Your task to perform on an android device: Search for pizza restaurants on Maps Image 0: 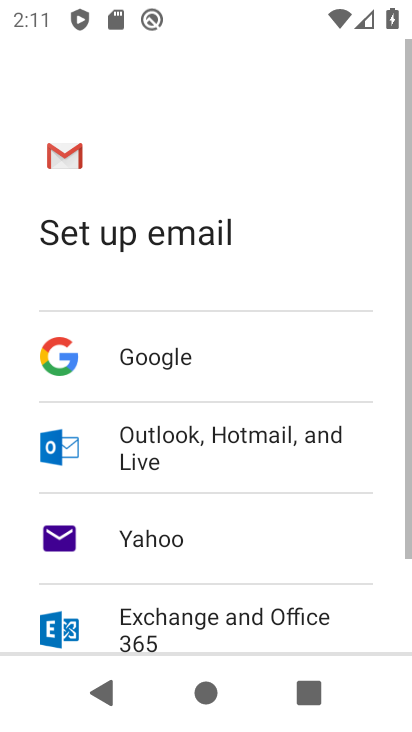
Step 0: press home button
Your task to perform on an android device: Search for pizza restaurants on Maps Image 1: 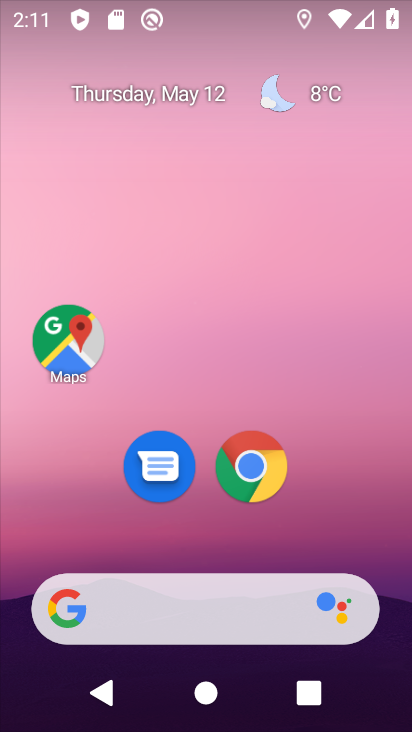
Step 1: click (72, 349)
Your task to perform on an android device: Search for pizza restaurants on Maps Image 2: 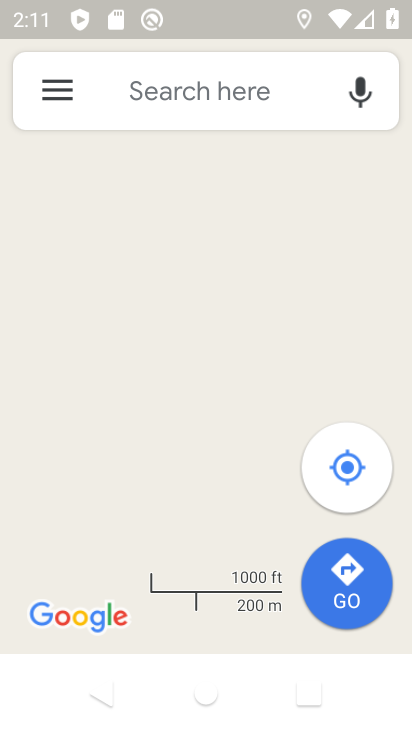
Step 2: click (191, 97)
Your task to perform on an android device: Search for pizza restaurants on Maps Image 3: 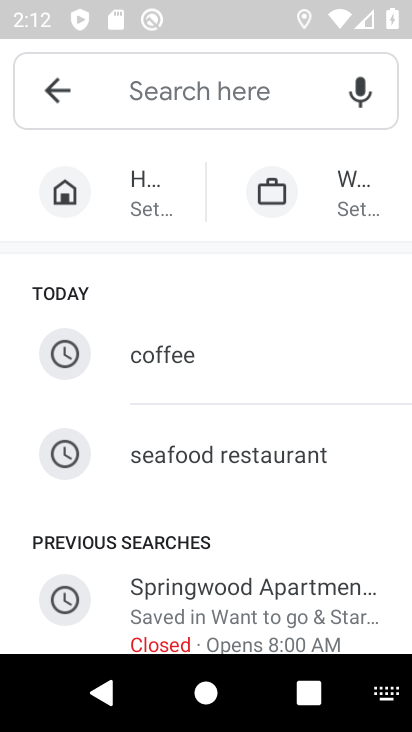
Step 3: type "pizza restaurants"
Your task to perform on an android device: Search for pizza restaurants on Maps Image 4: 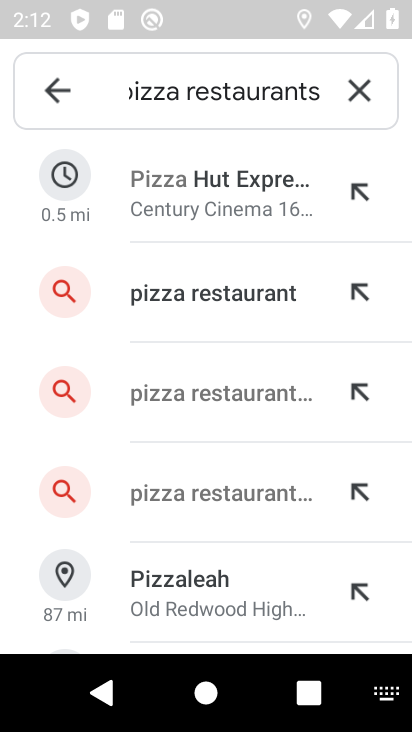
Step 4: click (132, 290)
Your task to perform on an android device: Search for pizza restaurants on Maps Image 5: 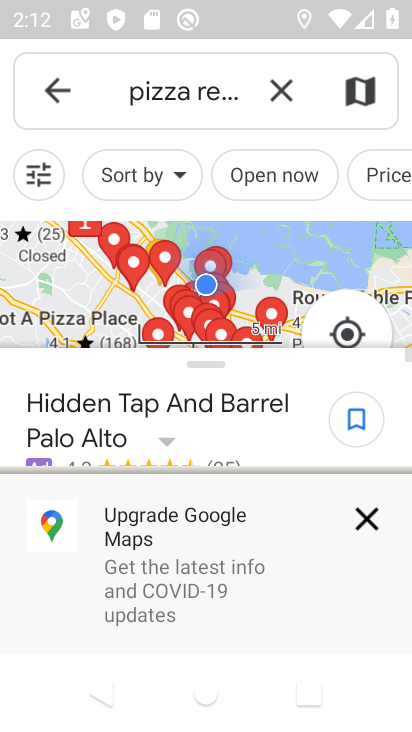
Step 5: drag from (201, 425) to (213, 241)
Your task to perform on an android device: Search for pizza restaurants on Maps Image 6: 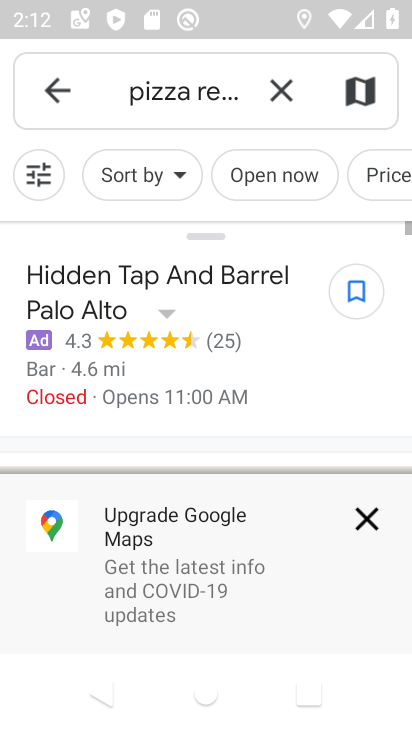
Step 6: drag from (208, 389) to (204, 151)
Your task to perform on an android device: Search for pizza restaurants on Maps Image 7: 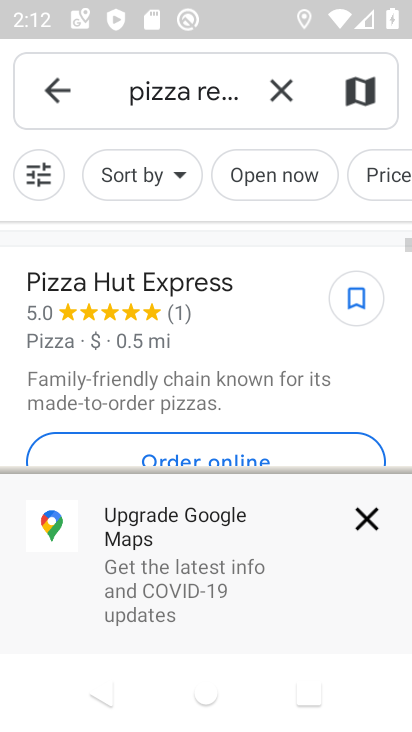
Step 7: click (371, 510)
Your task to perform on an android device: Search for pizza restaurants on Maps Image 8: 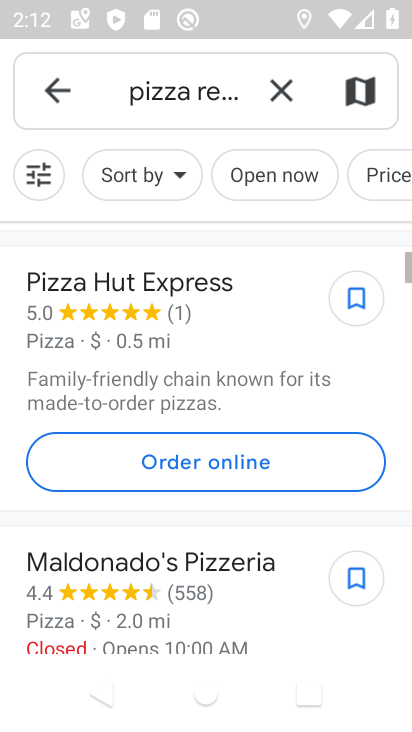
Step 8: task complete